Your task to perform on an android device: Go to Amazon Image 0: 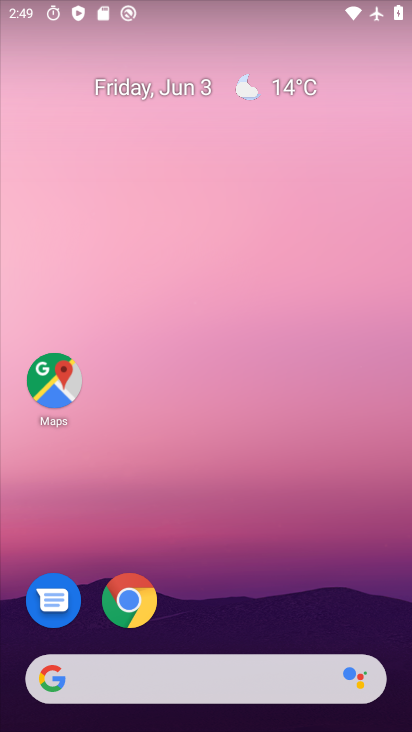
Step 0: drag from (224, 77) to (212, 45)
Your task to perform on an android device: Go to Amazon Image 1: 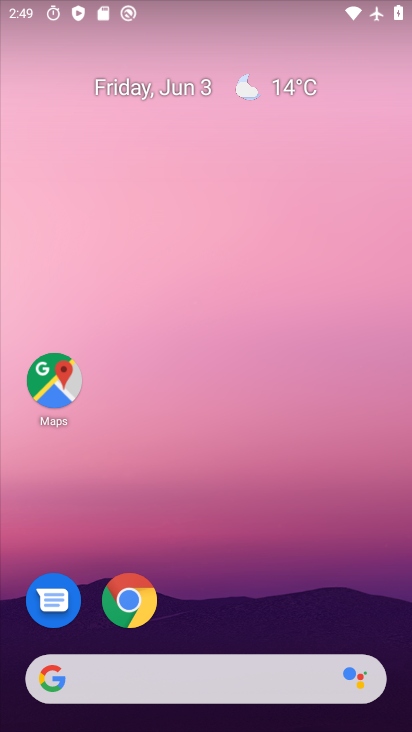
Step 1: drag from (202, 466) to (13, 108)
Your task to perform on an android device: Go to Amazon Image 2: 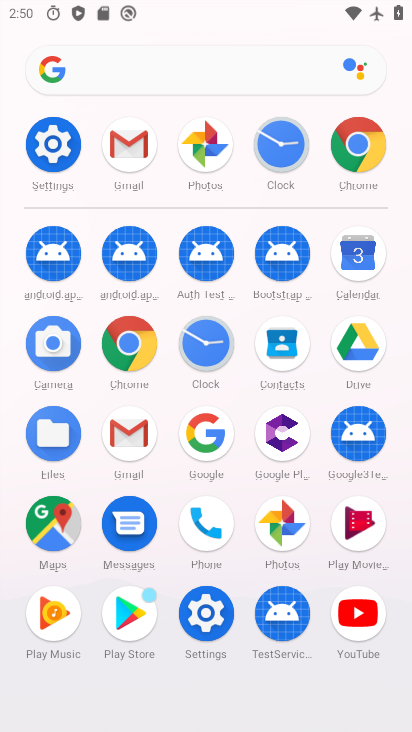
Step 2: drag from (12, 503) to (42, 134)
Your task to perform on an android device: Go to Amazon Image 3: 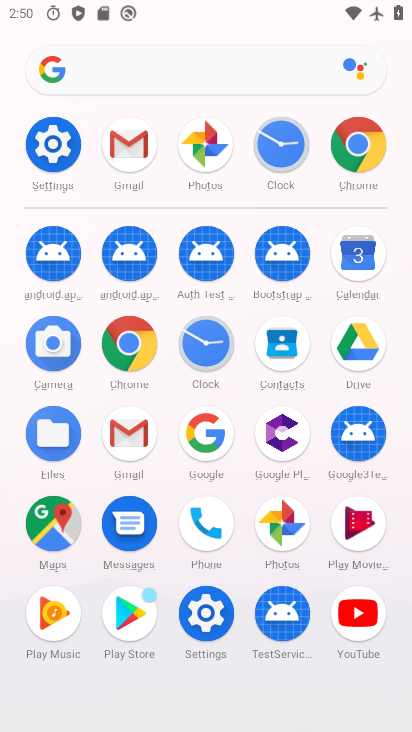
Step 3: click (353, 144)
Your task to perform on an android device: Go to Amazon Image 4: 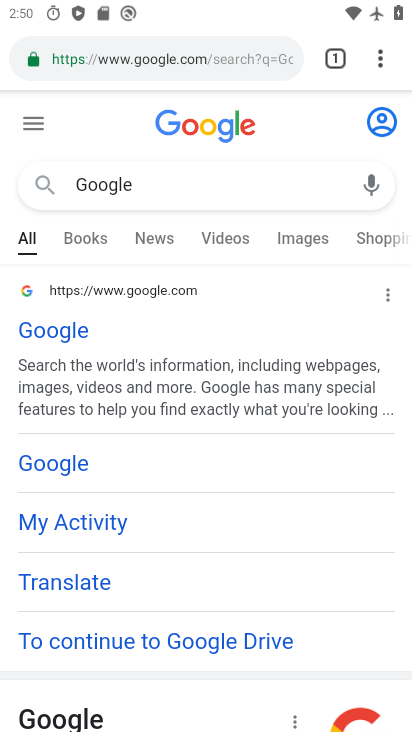
Step 4: click (166, 60)
Your task to perform on an android device: Go to Amazon Image 5: 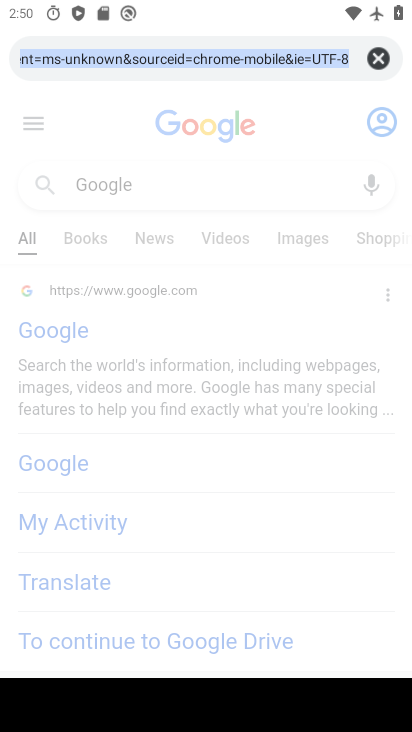
Step 5: click (373, 55)
Your task to perform on an android device: Go to Amazon Image 6: 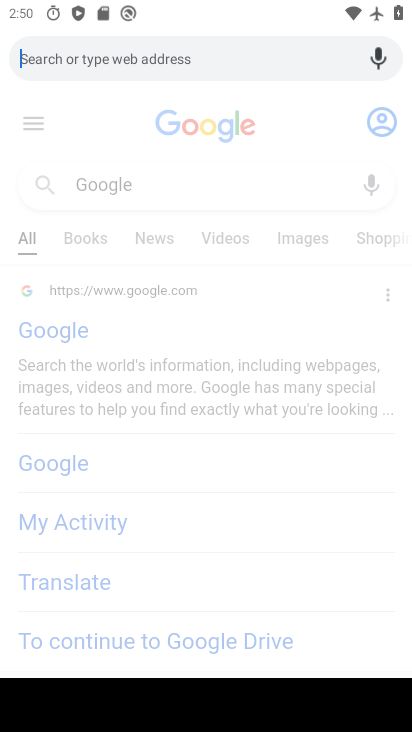
Step 6: type " Amazon"
Your task to perform on an android device: Go to Amazon Image 7: 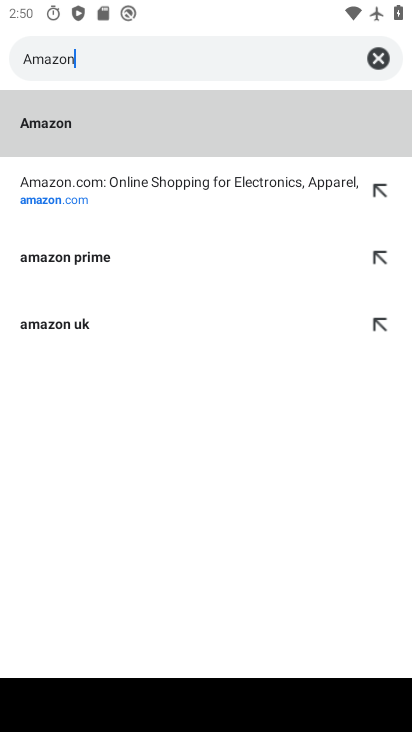
Step 7: type ""
Your task to perform on an android device: Go to Amazon Image 8: 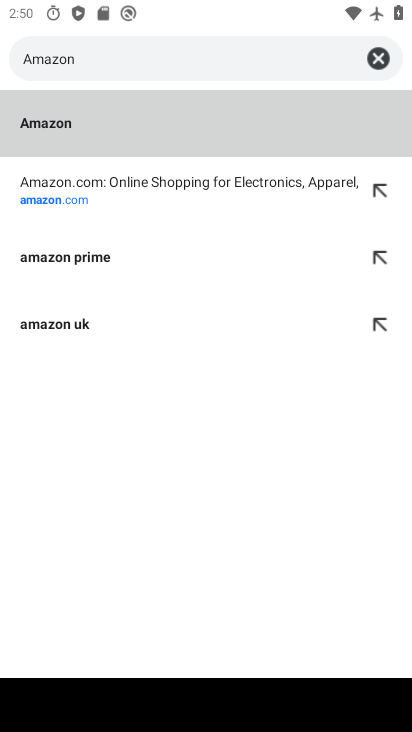
Step 8: click (86, 169)
Your task to perform on an android device: Go to Amazon Image 9: 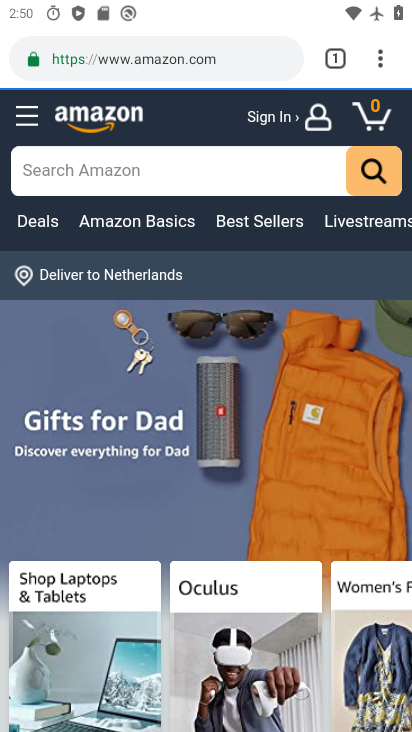
Step 9: task complete